Your task to perform on an android device: refresh tabs in the chrome app Image 0: 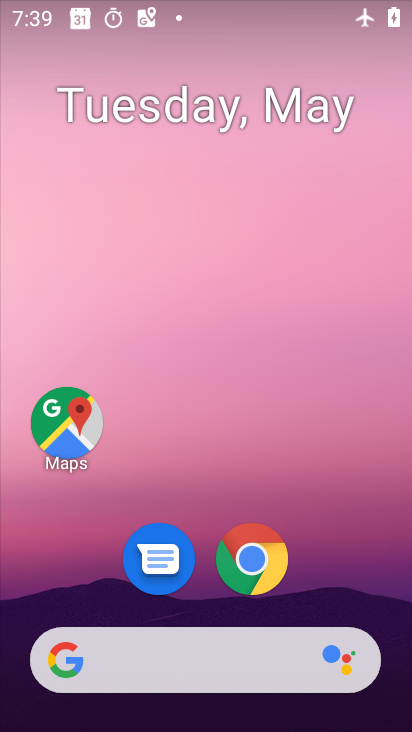
Step 0: drag from (386, 573) to (298, 50)
Your task to perform on an android device: refresh tabs in the chrome app Image 1: 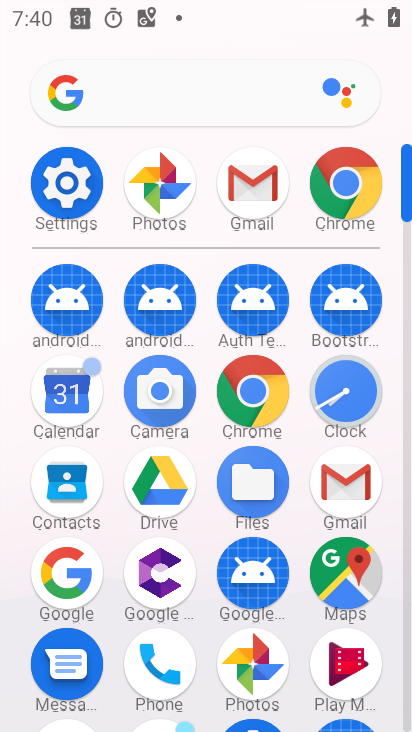
Step 1: click (247, 408)
Your task to perform on an android device: refresh tabs in the chrome app Image 2: 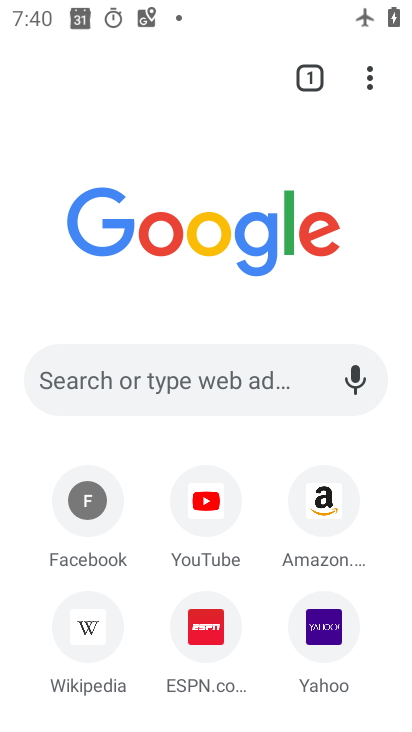
Step 2: click (373, 68)
Your task to perform on an android device: refresh tabs in the chrome app Image 3: 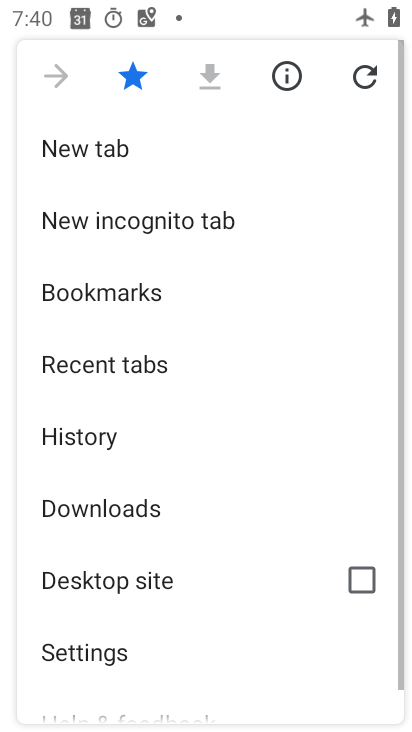
Step 3: click (365, 79)
Your task to perform on an android device: refresh tabs in the chrome app Image 4: 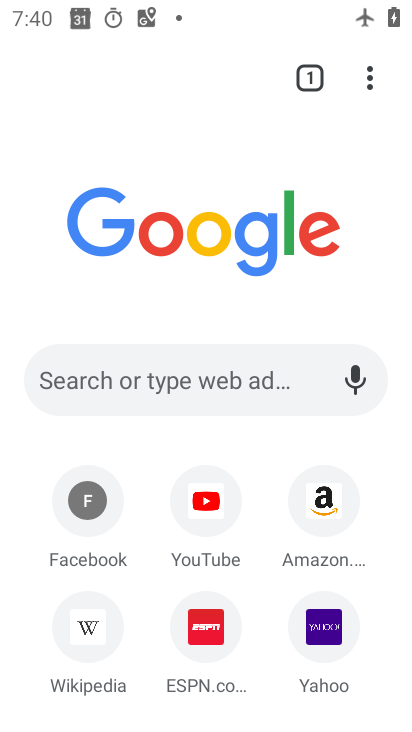
Step 4: task complete